Your task to perform on an android device: See recent photos Image 0: 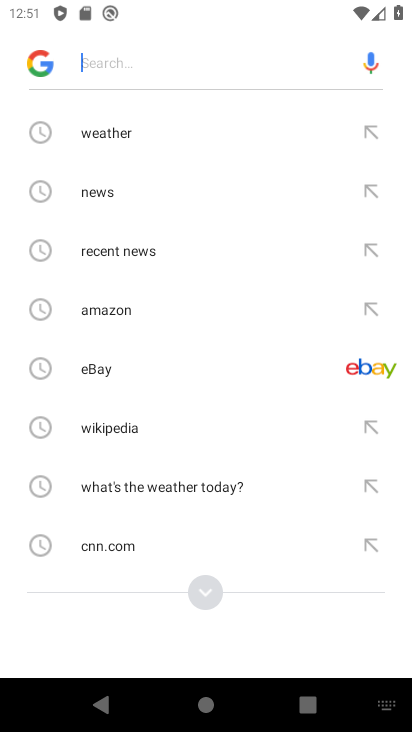
Step 0: press back button
Your task to perform on an android device: See recent photos Image 1: 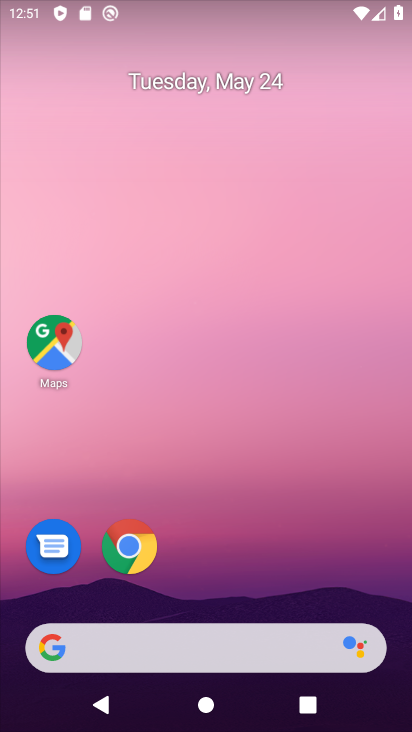
Step 1: drag from (185, 610) to (213, 123)
Your task to perform on an android device: See recent photos Image 2: 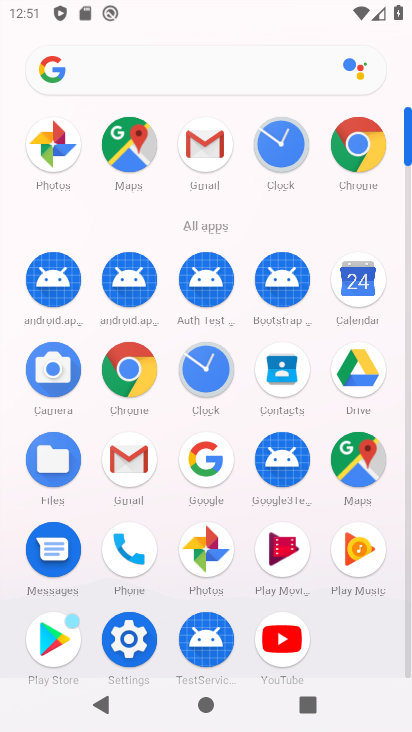
Step 2: click (214, 566)
Your task to perform on an android device: See recent photos Image 3: 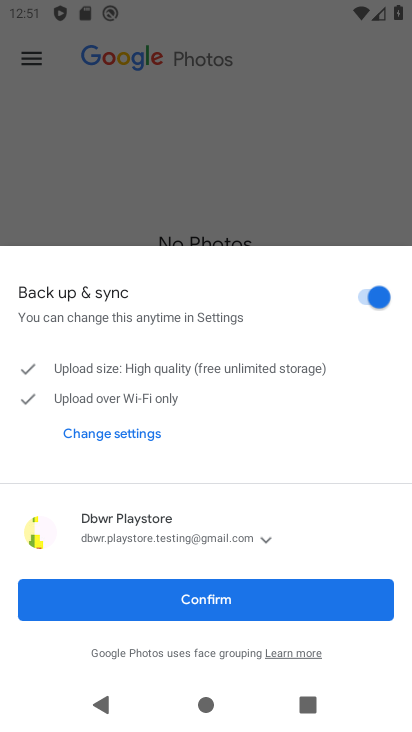
Step 3: click (228, 601)
Your task to perform on an android device: See recent photos Image 4: 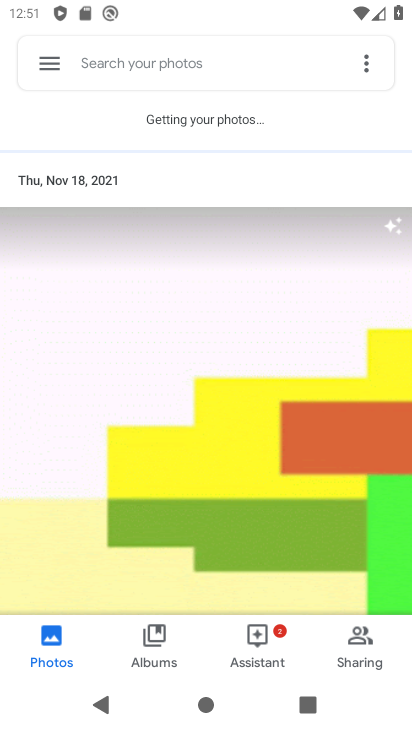
Step 4: task complete